Your task to perform on an android device: What is the news today? Image 0: 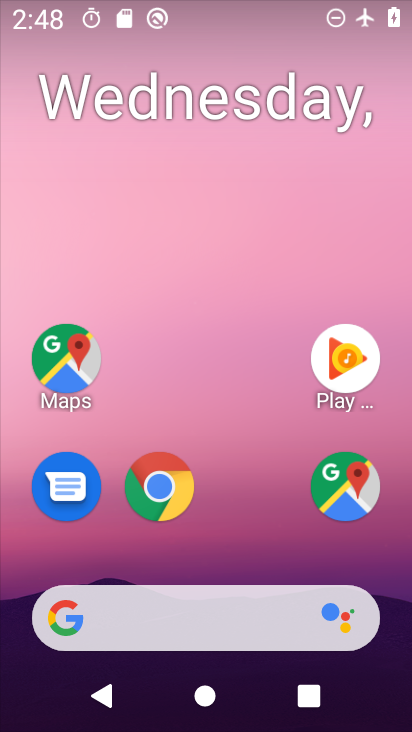
Step 0: press home button
Your task to perform on an android device: What is the news today? Image 1: 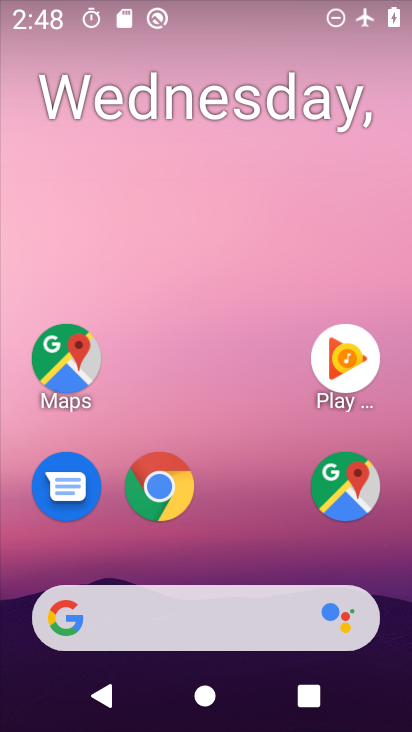
Step 1: task complete